Your task to perform on an android device: Go to Android settings Image 0: 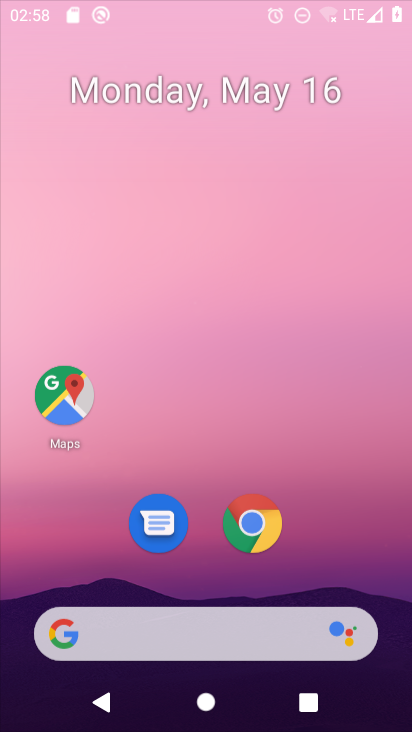
Step 0: drag from (309, 223) to (320, 135)
Your task to perform on an android device: Go to Android settings Image 1: 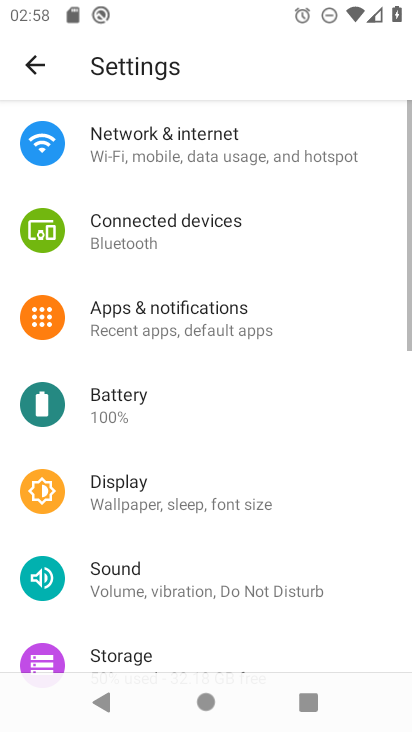
Step 1: drag from (222, 572) to (245, 155)
Your task to perform on an android device: Go to Android settings Image 2: 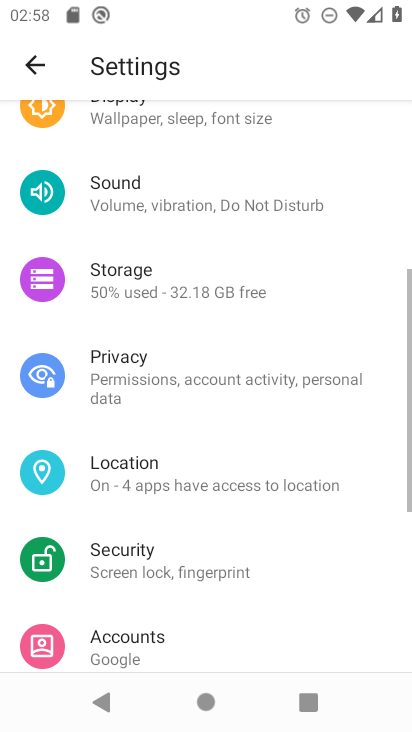
Step 2: click (203, 592)
Your task to perform on an android device: Go to Android settings Image 3: 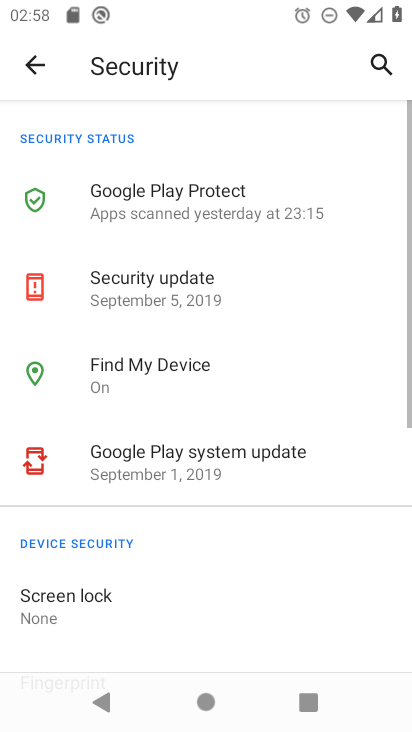
Step 3: task complete